Your task to perform on an android device: Show me productivity apps on the Play Store Image 0: 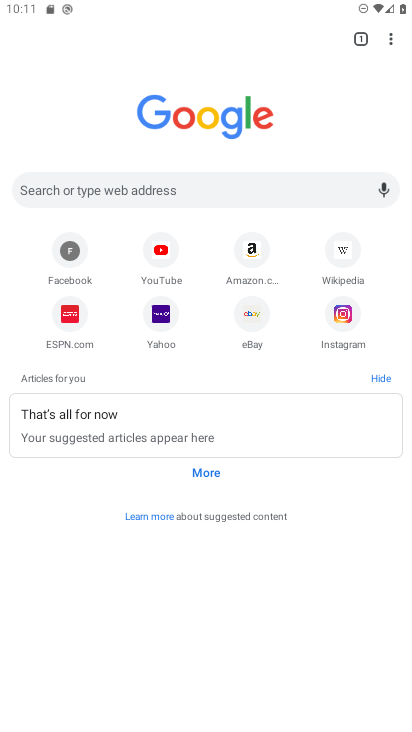
Step 0: press home button
Your task to perform on an android device: Show me productivity apps on the Play Store Image 1: 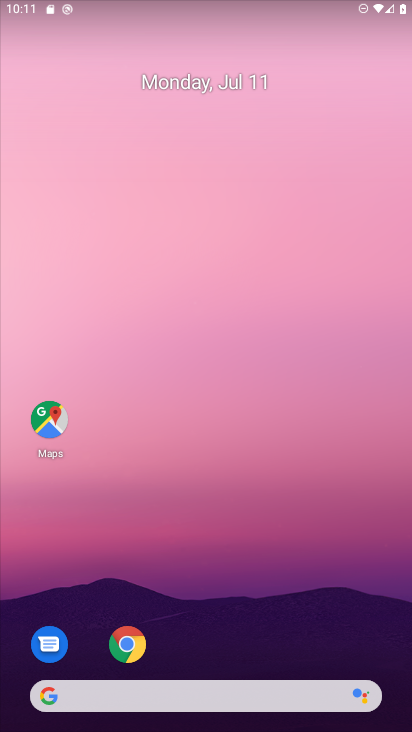
Step 1: drag from (214, 675) to (227, 271)
Your task to perform on an android device: Show me productivity apps on the Play Store Image 2: 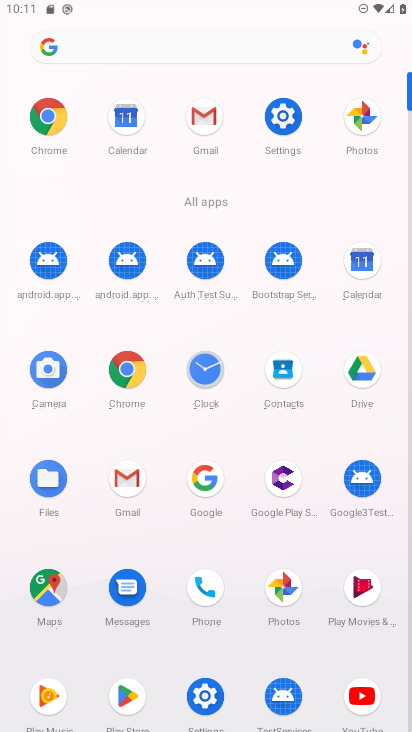
Step 2: click (112, 697)
Your task to perform on an android device: Show me productivity apps on the Play Store Image 3: 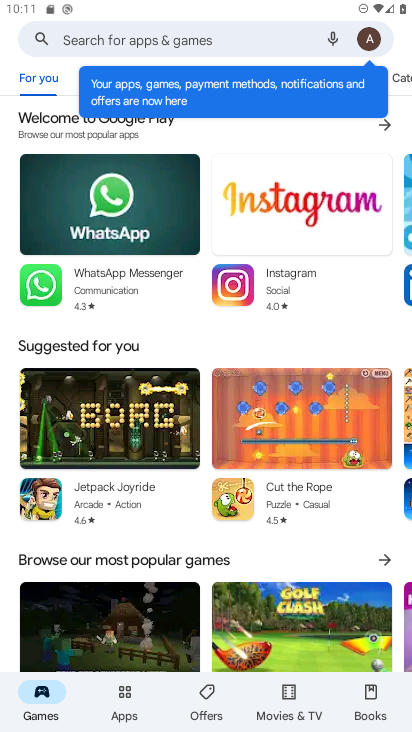
Step 3: click (132, 705)
Your task to perform on an android device: Show me productivity apps on the Play Store Image 4: 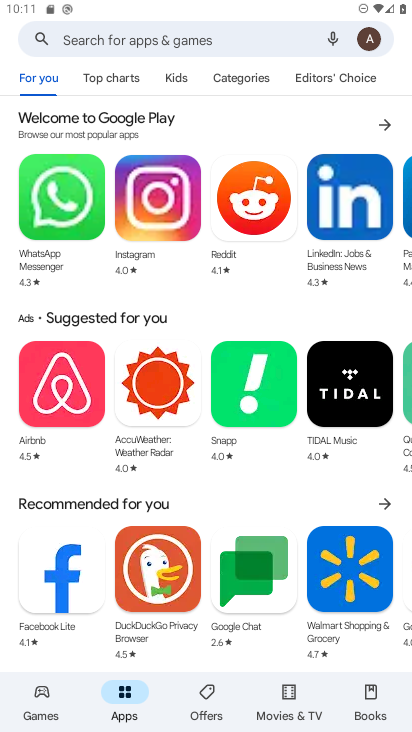
Step 4: task complete